Your task to perform on an android device: Search for pizza restaurants on Maps Image 0: 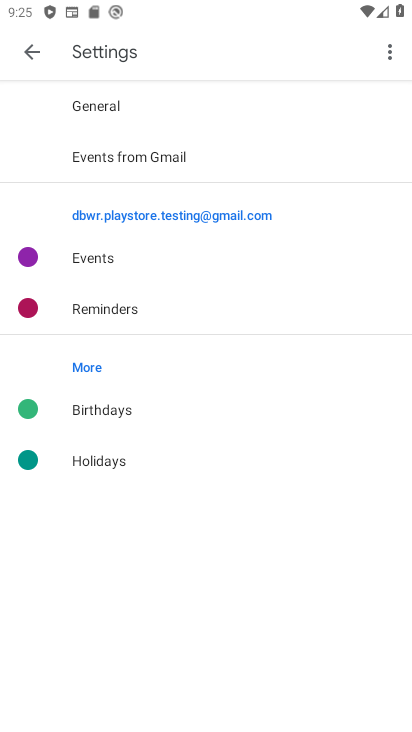
Step 0: press home button
Your task to perform on an android device: Search for pizza restaurants on Maps Image 1: 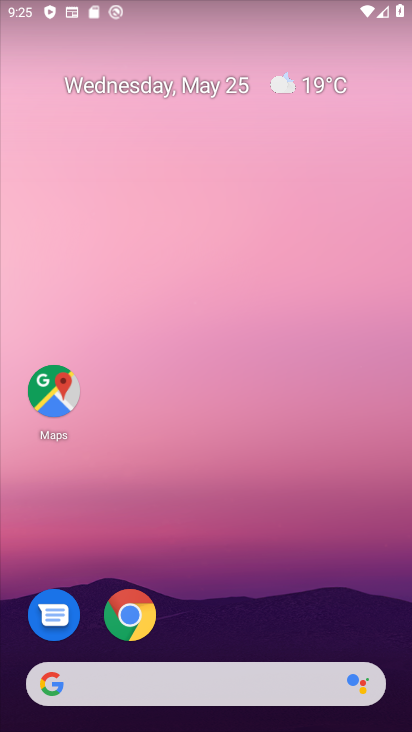
Step 1: drag from (205, 702) to (223, 188)
Your task to perform on an android device: Search for pizza restaurants on Maps Image 2: 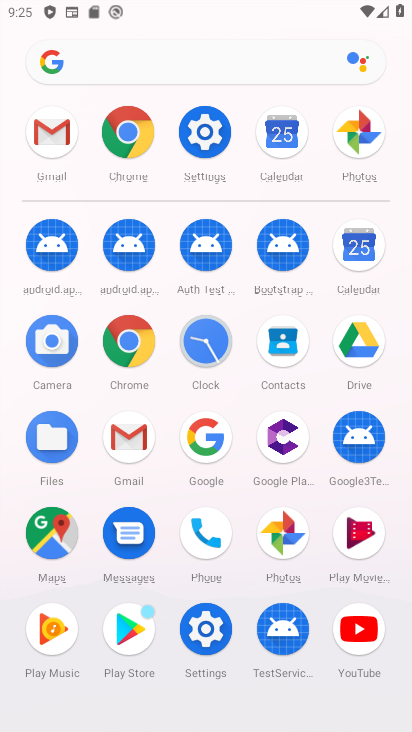
Step 2: click (52, 524)
Your task to perform on an android device: Search for pizza restaurants on Maps Image 3: 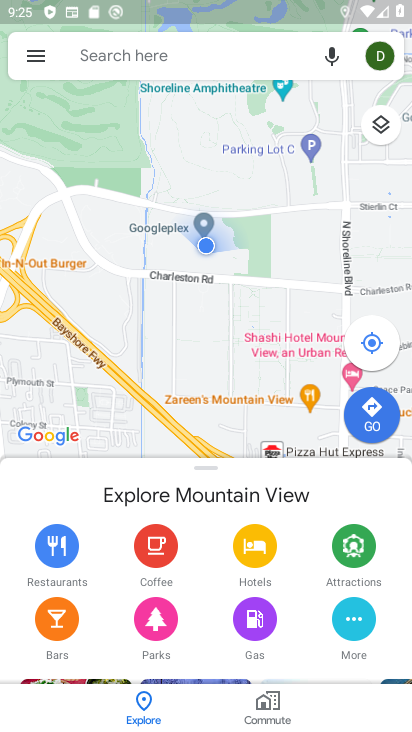
Step 3: click (158, 63)
Your task to perform on an android device: Search for pizza restaurants on Maps Image 4: 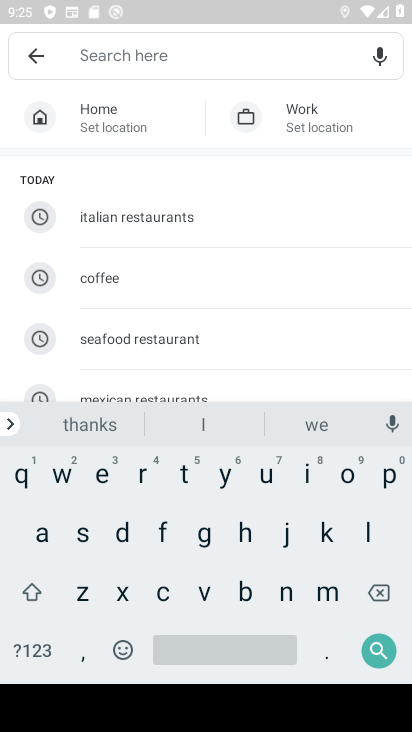
Step 4: click (384, 486)
Your task to perform on an android device: Search for pizza restaurants on Maps Image 5: 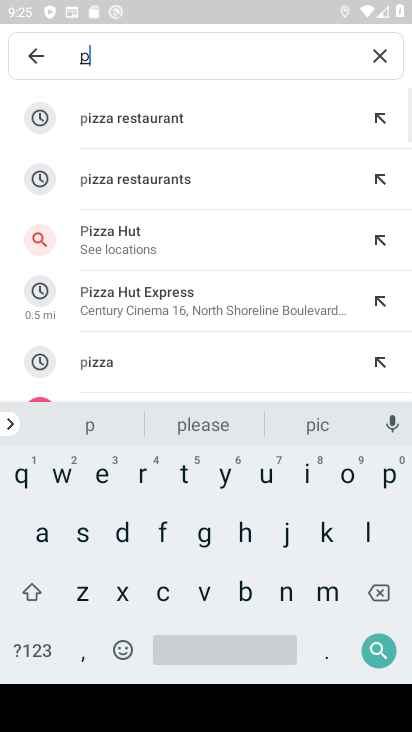
Step 5: click (129, 132)
Your task to perform on an android device: Search for pizza restaurants on Maps Image 6: 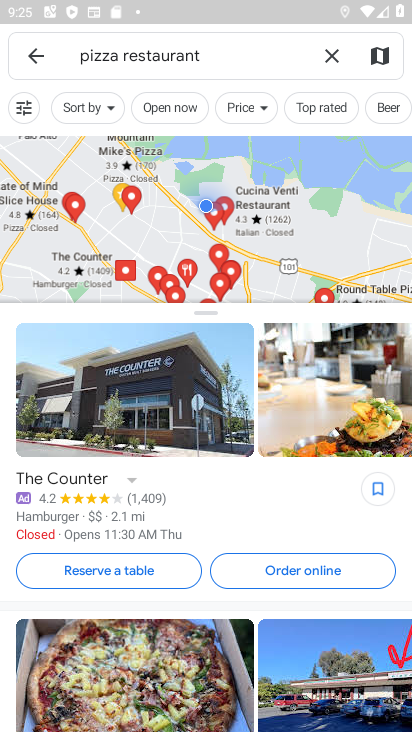
Step 6: task complete